Your task to perform on an android device: turn off sleep mode Image 0: 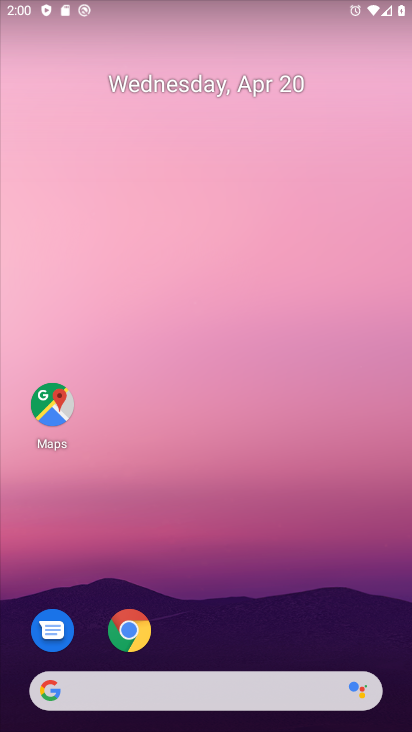
Step 0: drag from (183, 514) to (110, 134)
Your task to perform on an android device: turn off sleep mode Image 1: 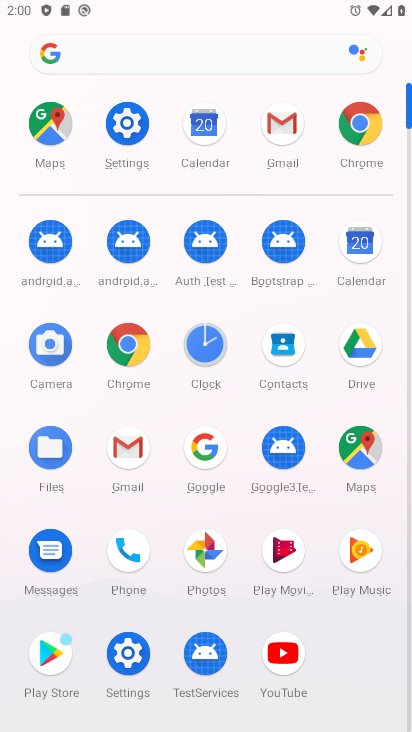
Step 1: click (124, 662)
Your task to perform on an android device: turn off sleep mode Image 2: 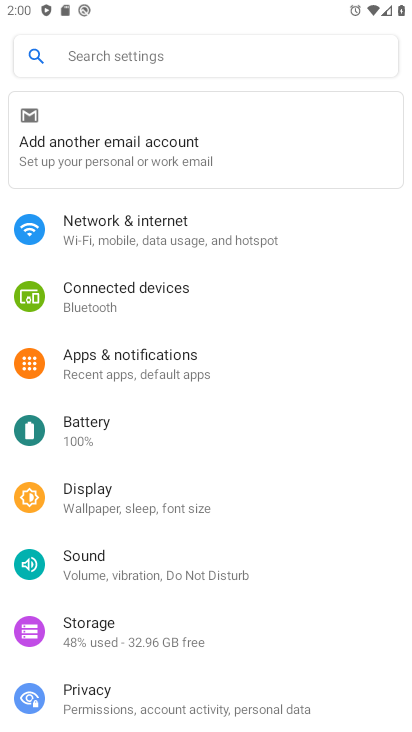
Step 2: click (148, 509)
Your task to perform on an android device: turn off sleep mode Image 3: 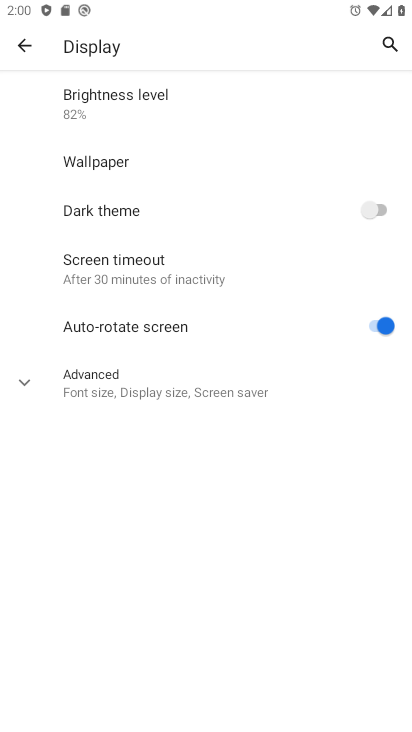
Step 3: click (62, 382)
Your task to perform on an android device: turn off sleep mode Image 4: 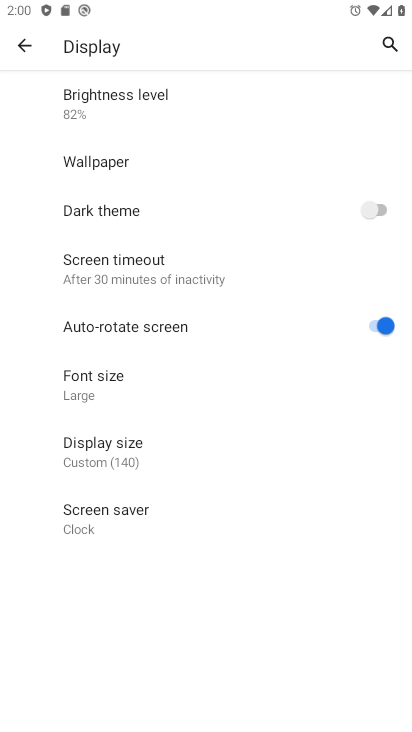
Step 4: task complete